Your task to perform on an android device: star an email in the gmail app Image 0: 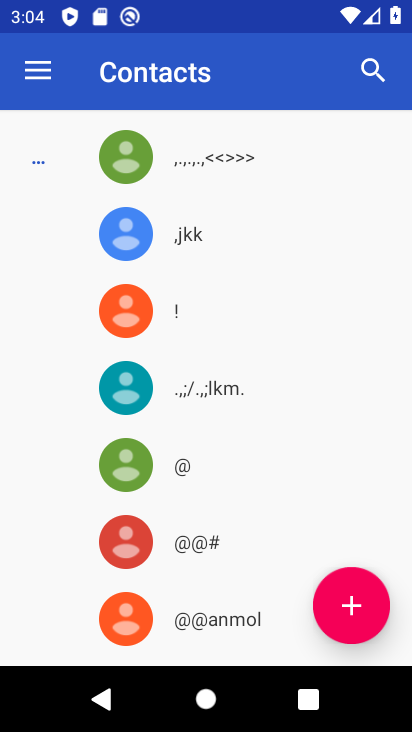
Step 0: press home button
Your task to perform on an android device: star an email in the gmail app Image 1: 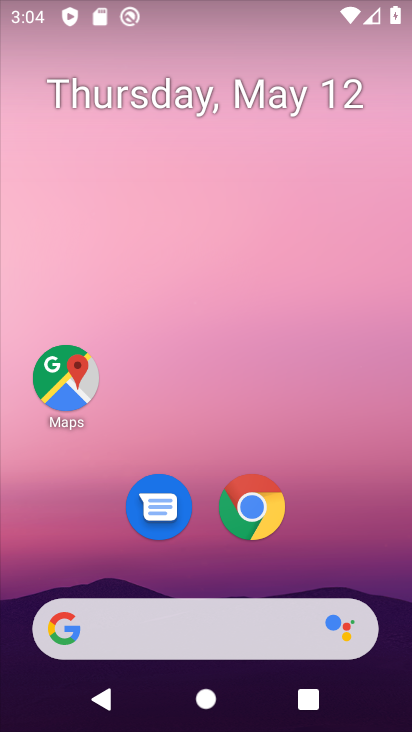
Step 1: drag from (198, 579) to (201, 8)
Your task to perform on an android device: star an email in the gmail app Image 2: 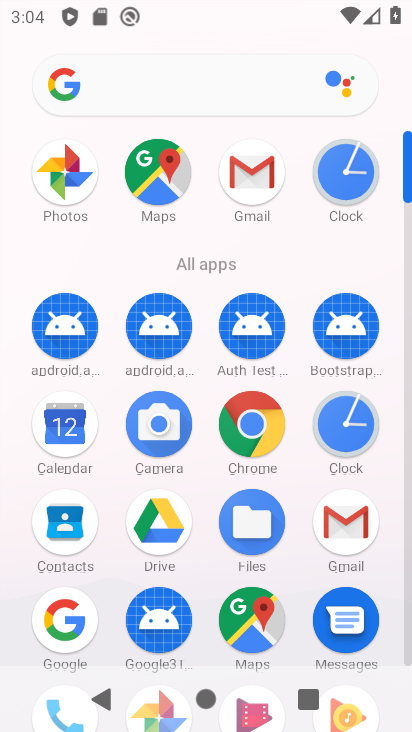
Step 2: click (253, 187)
Your task to perform on an android device: star an email in the gmail app Image 3: 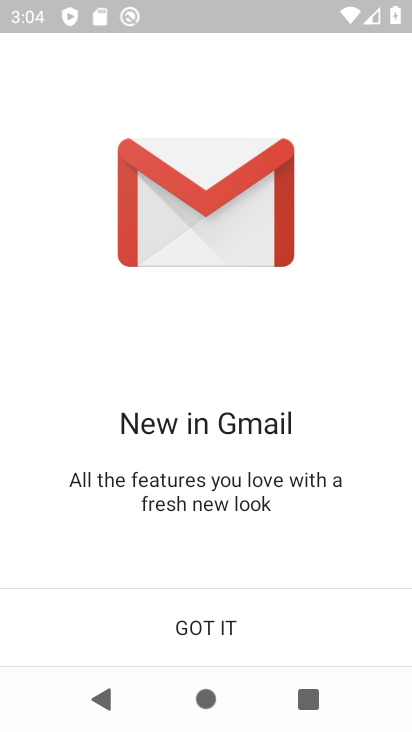
Step 3: click (191, 623)
Your task to perform on an android device: star an email in the gmail app Image 4: 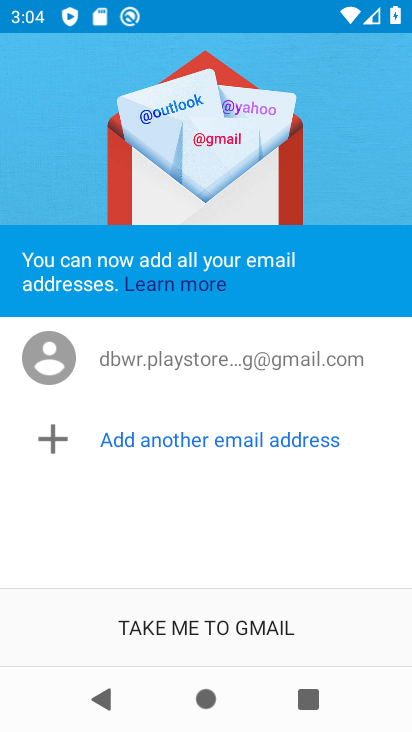
Step 4: click (191, 623)
Your task to perform on an android device: star an email in the gmail app Image 5: 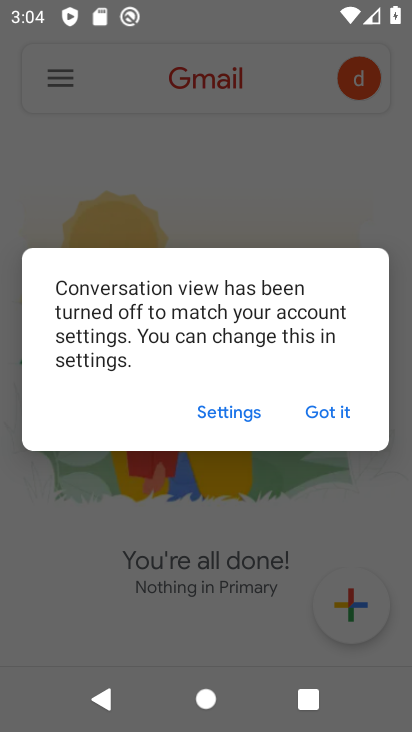
Step 5: click (303, 416)
Your task to perform on an android device: star an email in the gmail app Image 6: 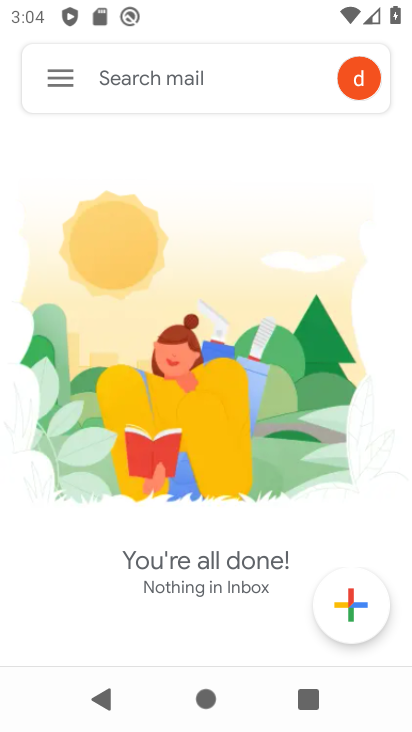
Step 6: task complete